Your task to perform on an android device: remove spam from my inbox in the gmail app Image 0: 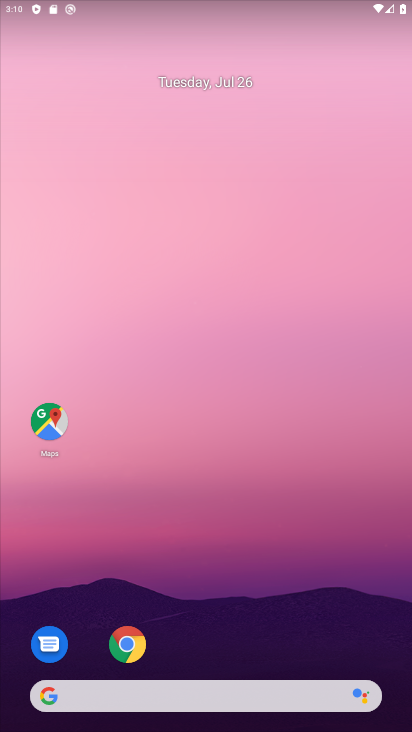
Step 0: drag from (290, 640) to (234, 234)
Your task to perform on an android device: remove spam from my inbox in the gmail app Image 1: 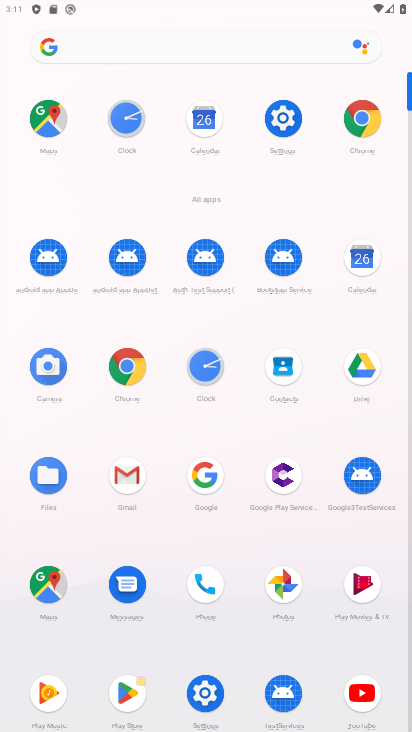
Step 1: click (133, 477)
Your task to perform on an android device: remove spam from my inbox in the gmail app Image 2: 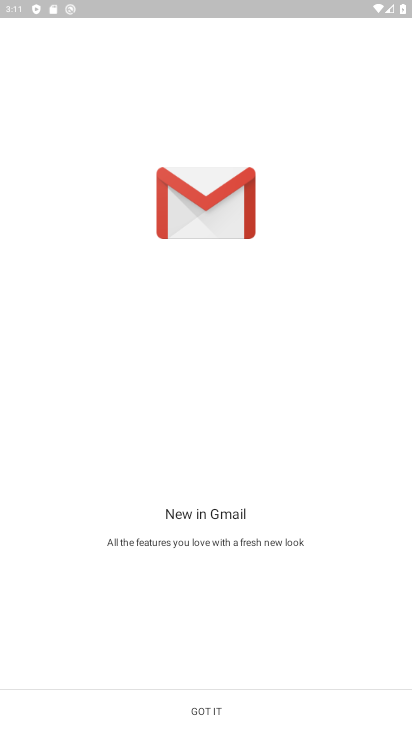
Step 2: click (197, 701)
Your task to perform on an android device: remove spam from my inbox in the gmail app Image 3: 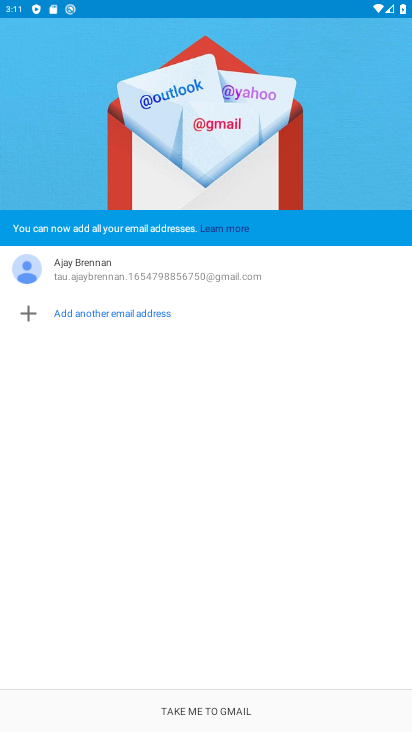
Step 3: click (197, 701)
Your task to perform on an android device: remove spam from my inbox in the gmail app Image 4: 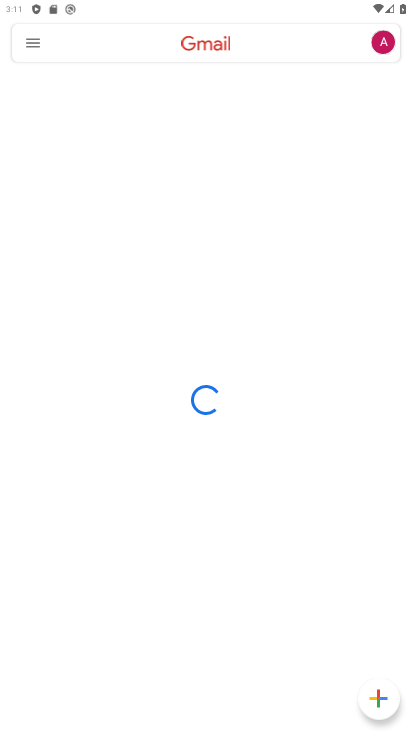
Step 4: click (41, 40)
Your task to perform on an android device: remove spam from my inbox in the gmail app Image 5: 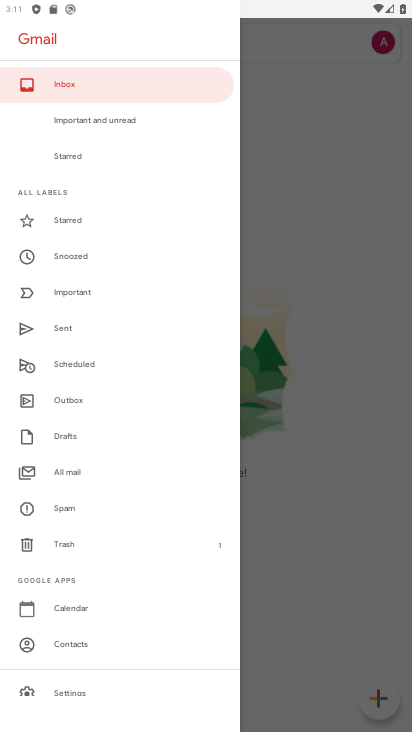
Step 5: click (81, 499)
Your task to perform on an android device: remove spam from my inbox in the gmail app Image 6: 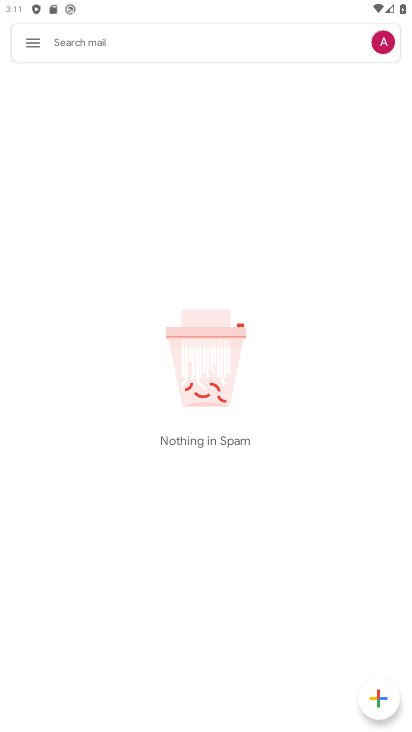
Step 6: task complete